Your task to perform on an android device: visit the assistant section in the google photos Image 0: 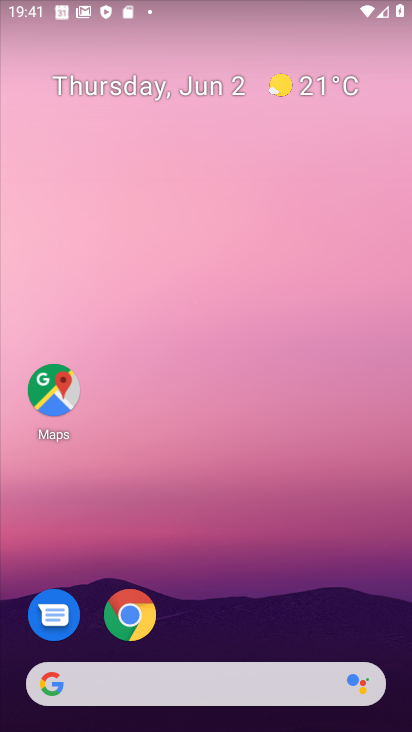
Step 0: drag from (327, 654) to (288, 74)
Your task to perform on an android device: visit the assistant section in the google photos Image 1: 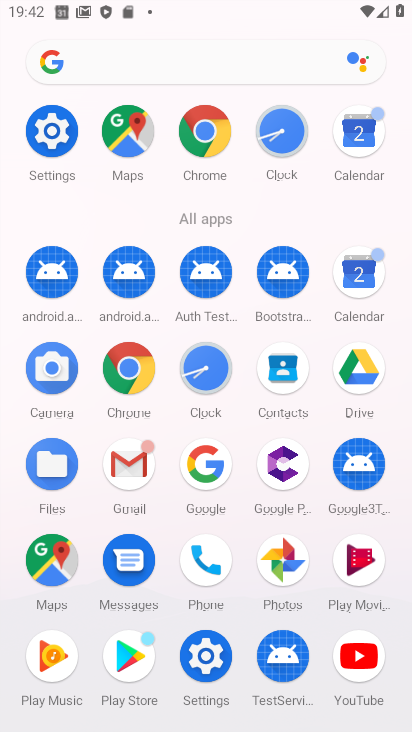
Step 1: click (271, 582)
Your task to perform on an android device: visit the assistant section in the google photos Image 2: 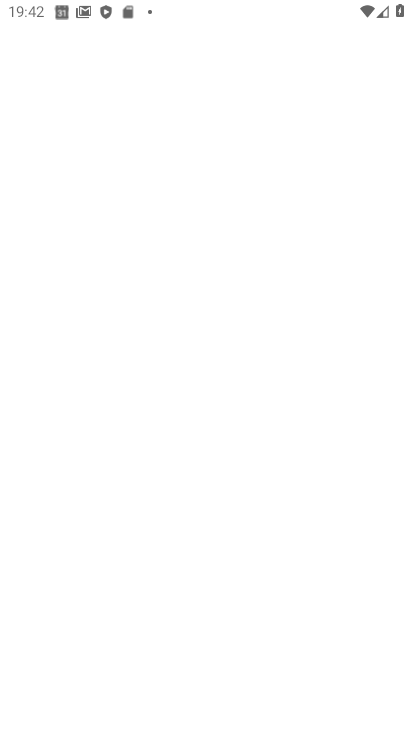
Step 2: task complete